Your task to perform on an android device: star an email in the gmail app Image 0: 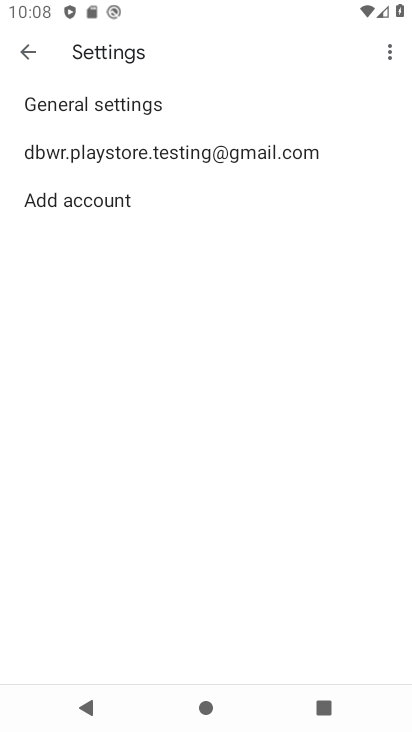
Step 0: click (24, 55)
Your task to perform on an android device: star an email in the gmail app Image 1: 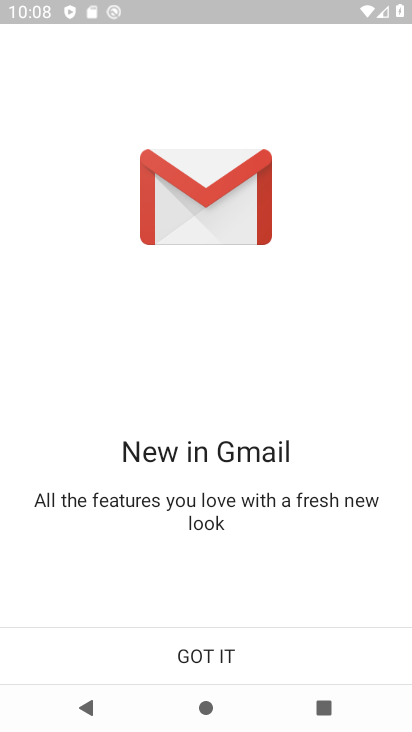
Step 1: click (204, 660)
Your task to perform on an android device: star an email in the gmail app Image 2: 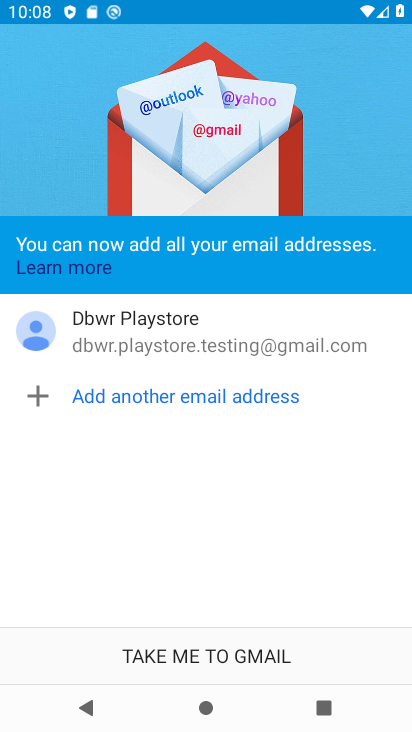
Step 2: click (204, 660)
Your task to perform on an android device: star an email in the gmail app Image 3: 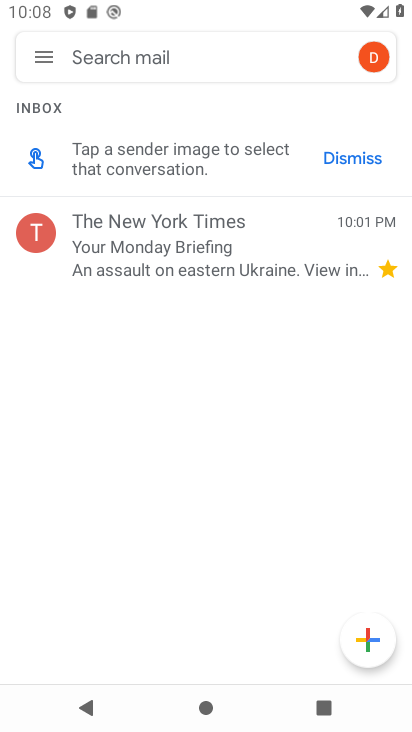
Step 3: task complete